Your task to perform on an android device: Open Google Chrome and click the shortcut for Amazon.com Image 0: 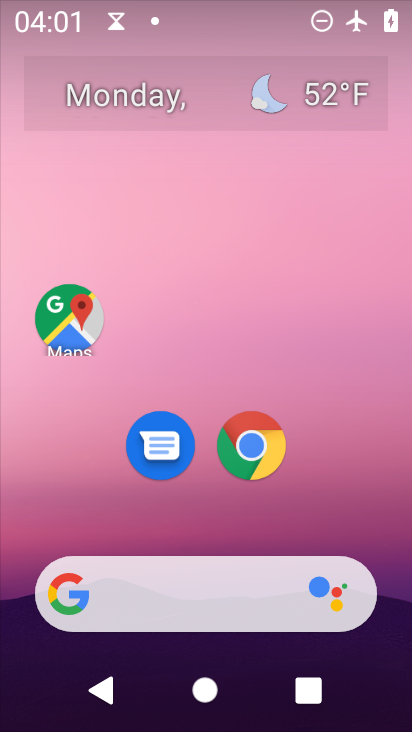
Step 0: click (254, 447)
Your task to perform on an android device: Open Google Chrome and click the shortcut for Amazon.com Image 1: 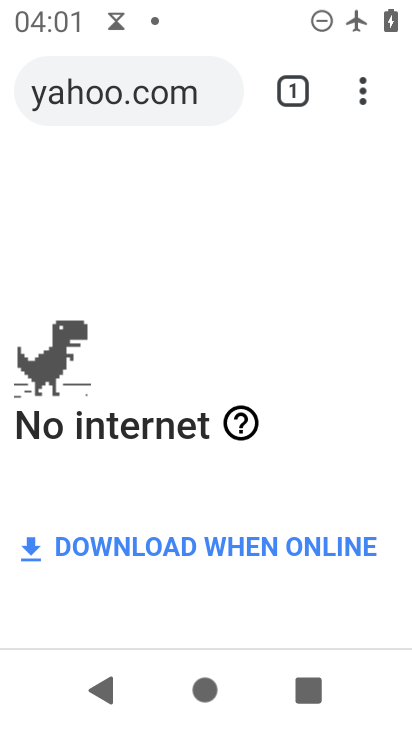
Step 1: click (365, 97)
Your task to perform on an android device: Open Google Chrome and click the shortcut for Amazon.com Image 2: 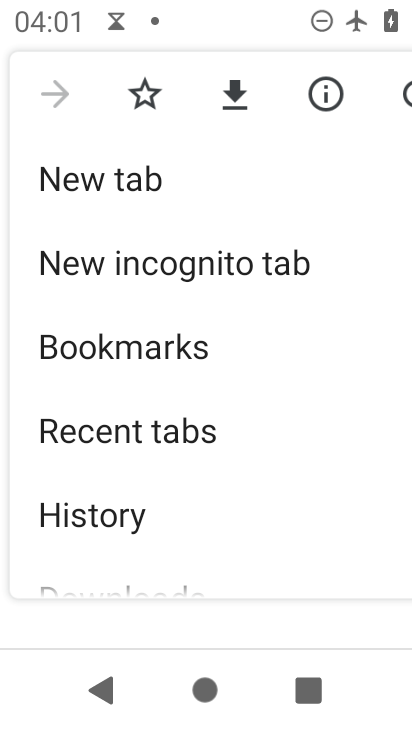
Step 2: click (117, 193)
Your task to perform on an android device: Open Google Chrome and click the shortcut for Amazon.com Image 3: 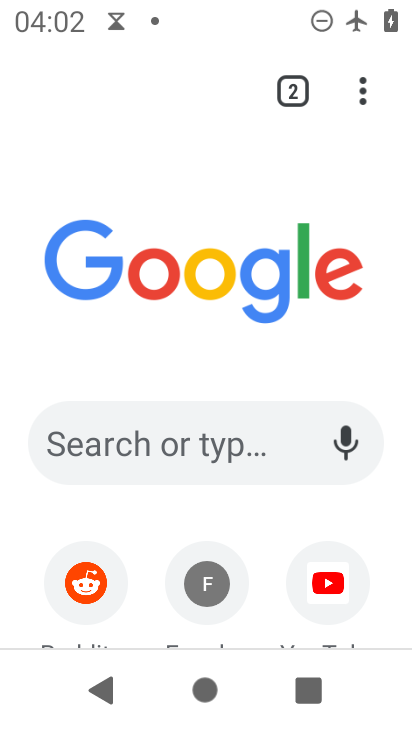
Step 3: drag from (281, 520) to (307, 195)
Your task to perform on an android device: Open Google Chrome and click the shortcut for Amazon.com Image 4: 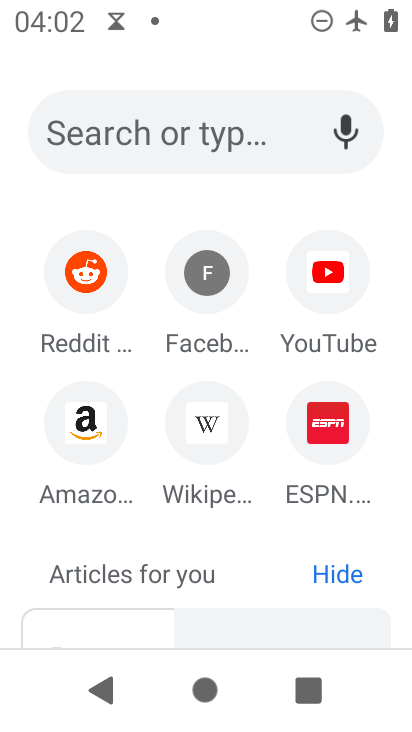
Step 4: click (106, 471)
Your task to perform on an android device: Open Google Chrome and click the shortcut for Amazon.com Image 5: 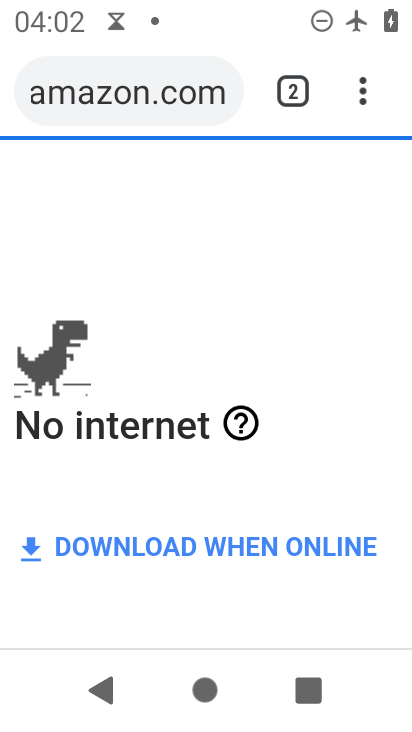
Step 5: task complete